Your task to perform on an android device: Open Chrome and go to the settings page Image 0: 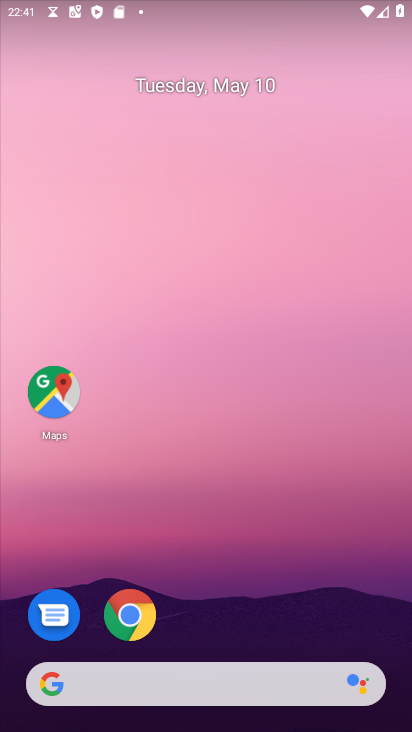
Step 0: click (127, 615)
Your task to perform on an android device: Open Chrome and go to the settings page Image 1: 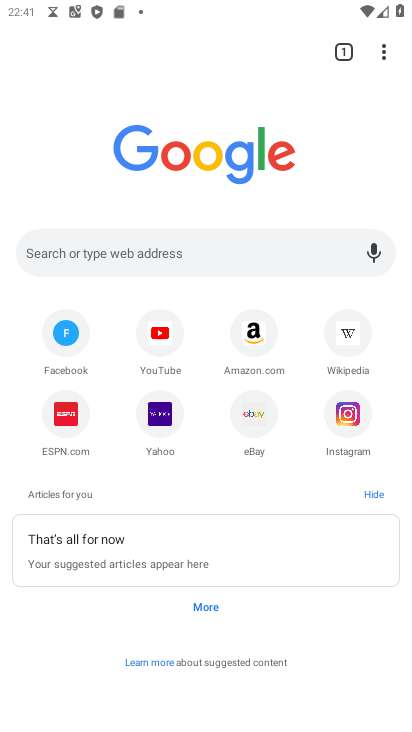
Step 1: click (382, 51)
Your task to perform on an android device: Open Chrome and go to the settings page Image 2: 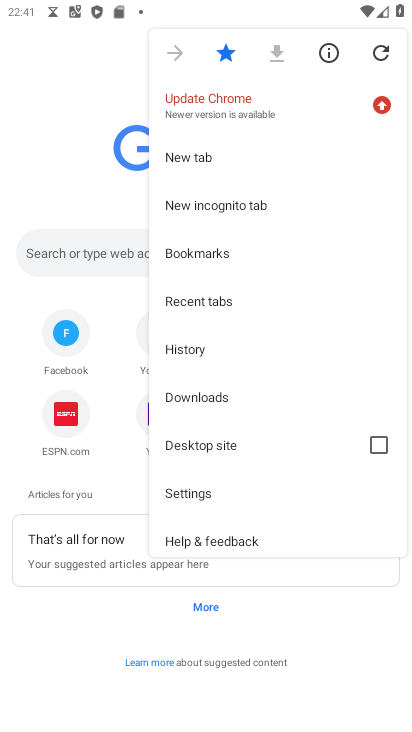
Step 2: click (189, 494)
Your task to perform on an android device: Open Chrome and go to the settings page Image 3: 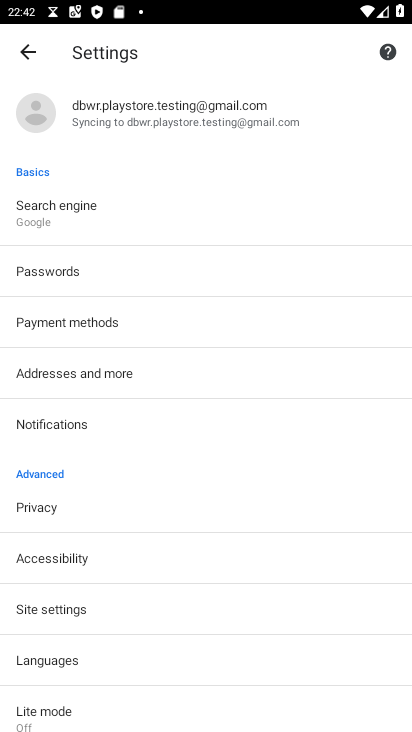
Step 3: task complete